Your task to perform on an android device: turn on translation in the chrome app Image 0: 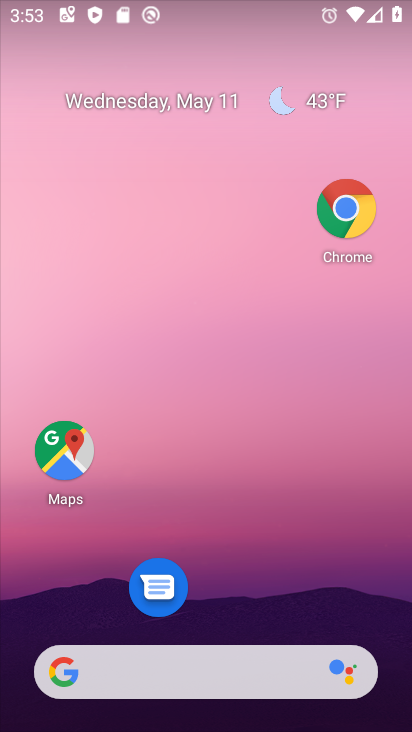
Step 0: click (360, 229)
Your task to perform on an android device: turn on translation in the chrome app Image 1: 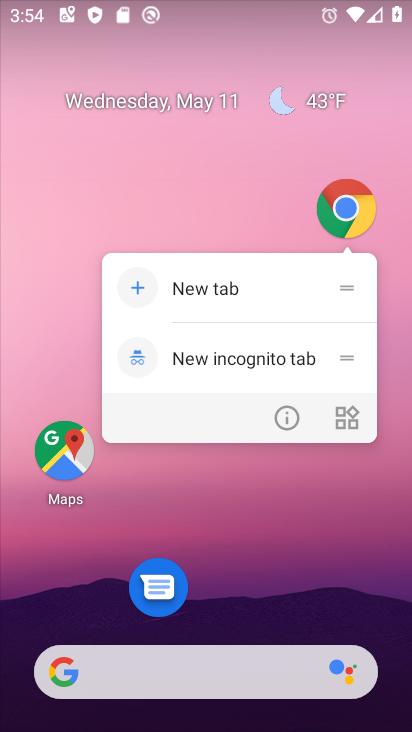
Step 1: click (212, 137)
Your task to perform on an android device: turn on translation in the chrome app Image 2: 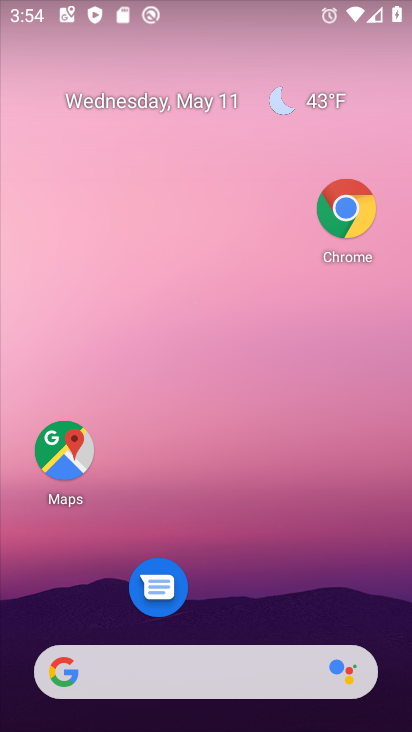
Step 2: click (342, 211)
Your task to perform on an android device: turn on translation in the chrome app Image 3: 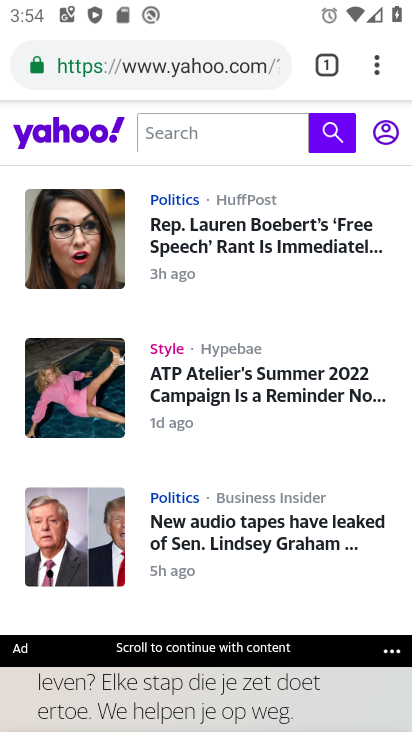
Step 3: click (385, 46)
Your task to perform on an android device: turn on translation in the chrome app Image 4: 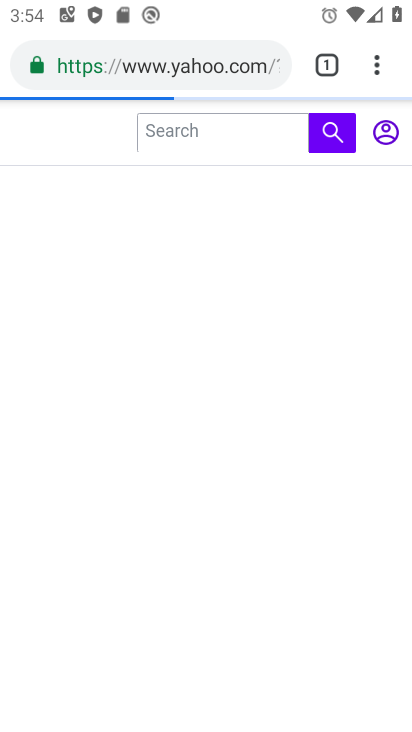
Step 4: click (325, 71)
Your task to perform on an android device: turn on translation in the chrome app Image 5: 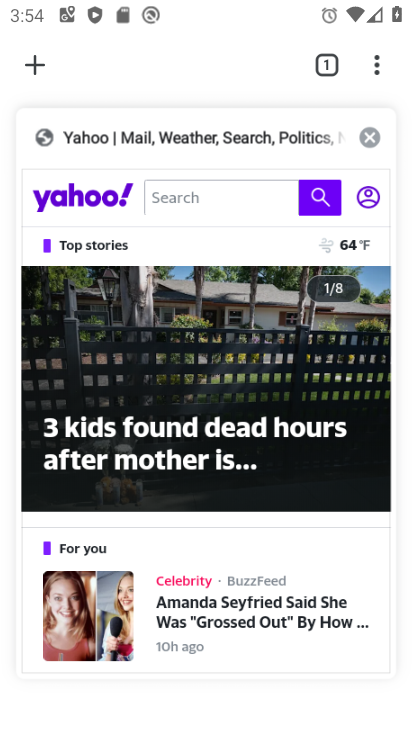
Step 5: click (370, 136)
Your task to perform on an android device: turn on translation in the chrome app Image 6: 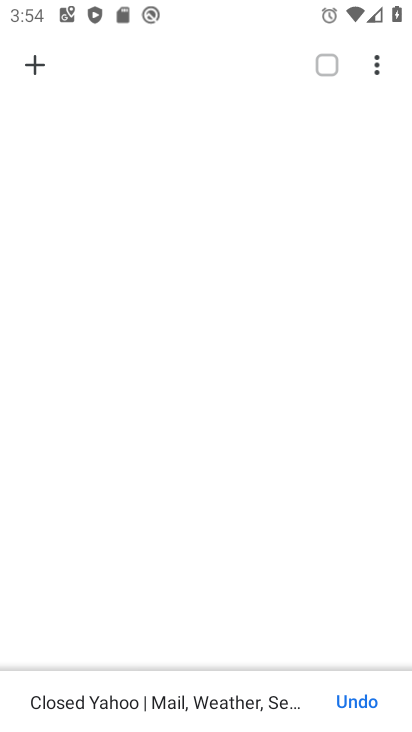
Step 6: click (375, 72)
Your task to perform on an android device: turn on translation in the chrome app Image 7: 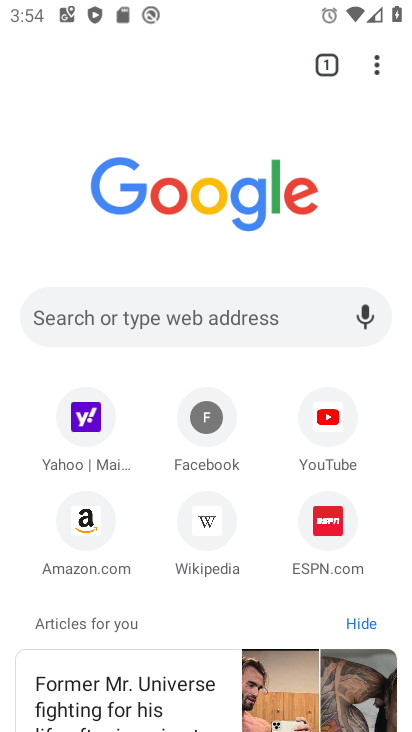
Step 7: click (377, 74)
Your task to perform on an android device: turn on translation in the chrome app Image 8: 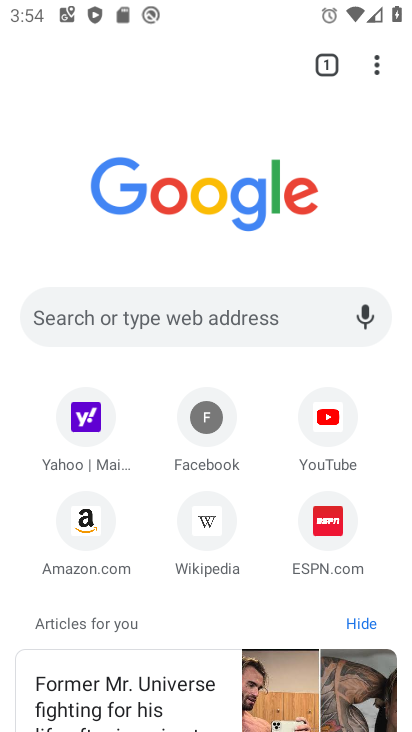
Step 8: click (378, 75)
Your task to perform on an android device: turn on translation in the chrome app Image 9: 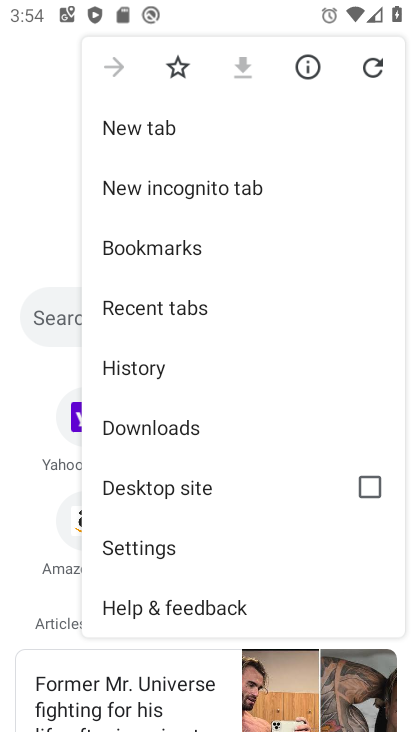
Step 9: click (254, 540)
Your task to perform on an android device: turn on translation in the chrome app Image 10: 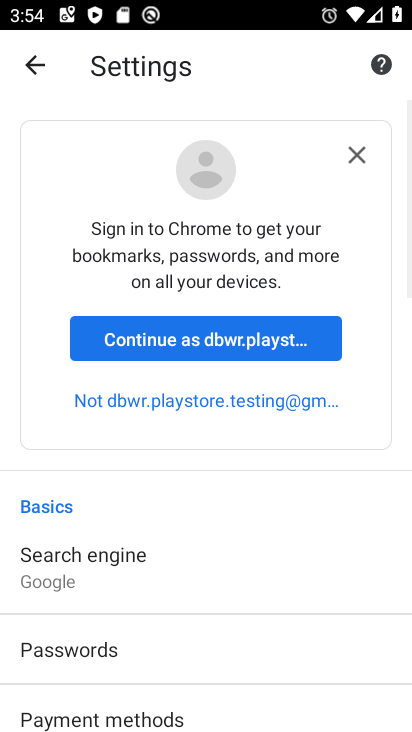
Step 10: drag from (280, 633) to (329, 446)
Your task to perform on an android device: turn on translation in the chrome app Image 11: 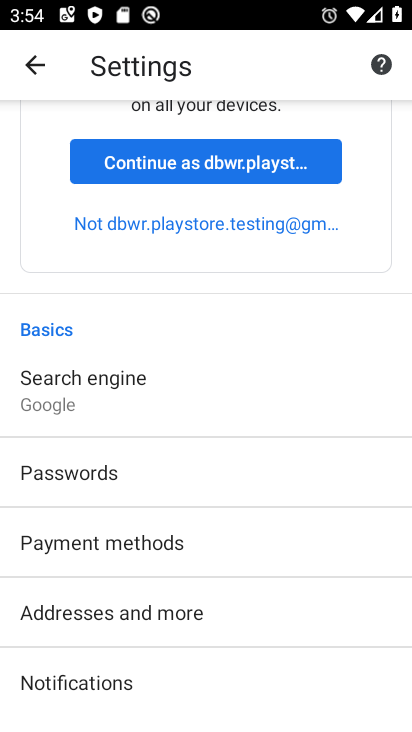
Step 11: drag from (285, 569) to (372, 250)
Your task to perform on an android device: turn on translation in the chrome app Image 12: 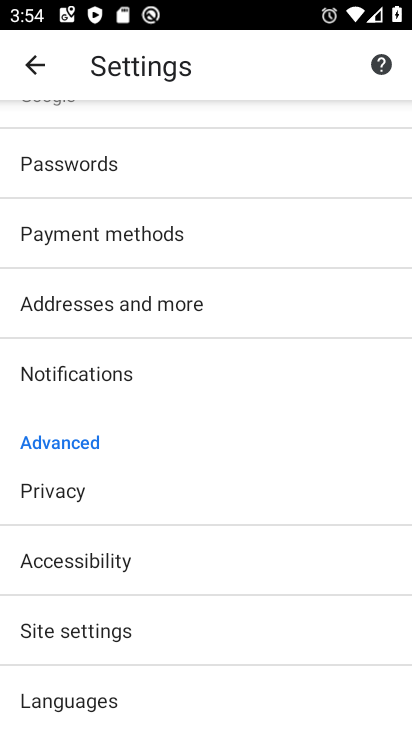
Step 12: drag from (283, 493) to (328, 140)
Your task to perform on an android device: turn on translation in the chrome app Image 13: 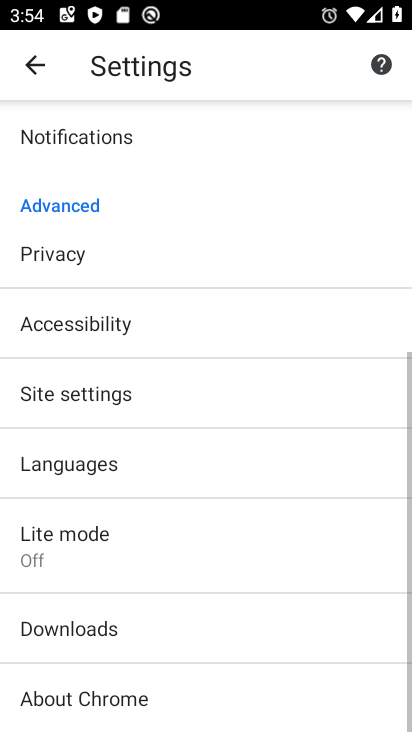
Step 13: drag from (316, 456) to (385, 166)
Your task to perform on an android device: turn on translation in the chrome app Image 14: 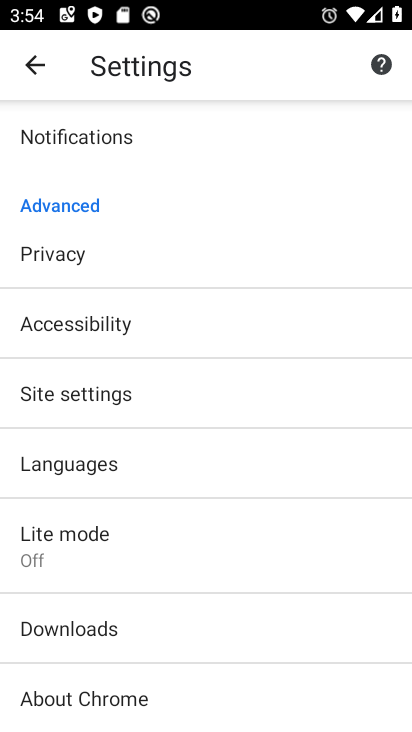
Step 14: drag from (284, 638) to (309, 382)
Your task to perform on an android device: turn on translation in the chrome app Image 15: 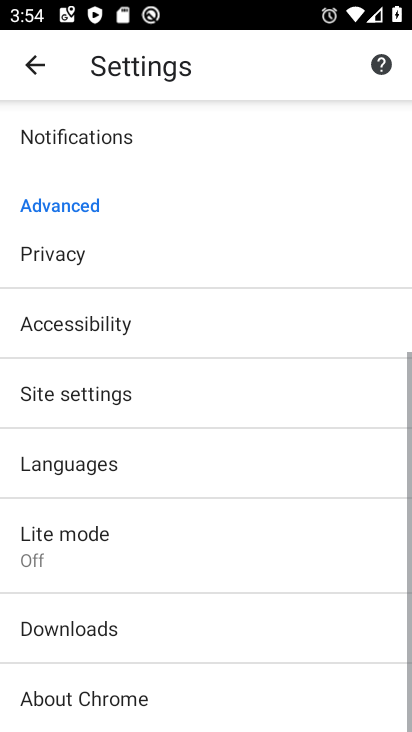
Step 15: click (229, 392)
Your task to perform on an android device: turn on translation in the chrome app Image 16: 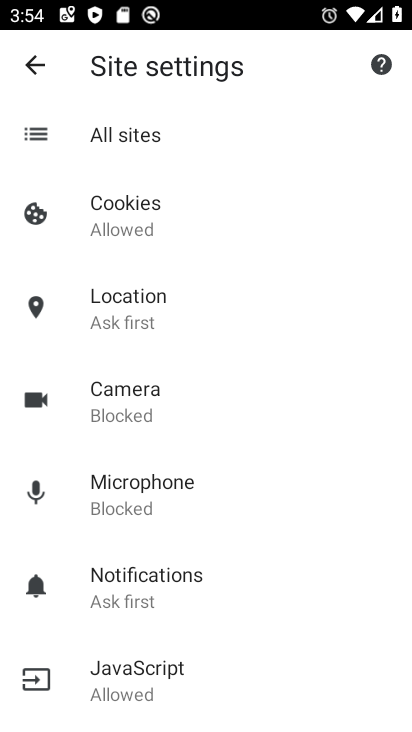
Step 16: drag from (271, 664) to (294, 215)
Your task to perform on an android device: turn on translation in the chrome app Image 17: 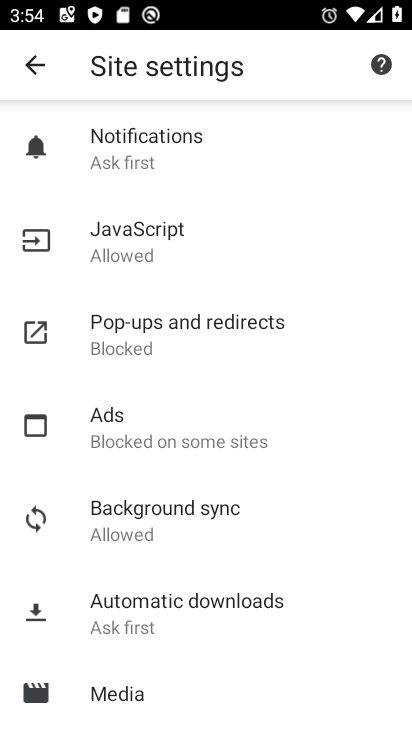
Step 17: drag from (242, 717) to (234, 352)
Your task to perform on an android device: turn on translation in the chrome app Image 18: 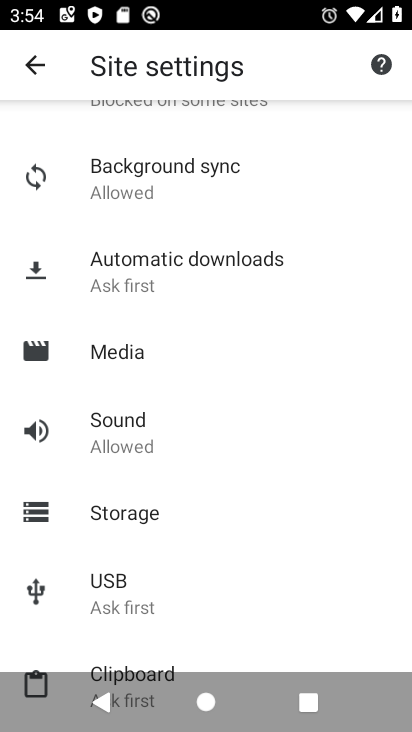
Step 18: drag from (195, 585) to (279, 370)
Your task to perform on an android device: turn on translation in the chrome app Image 19: 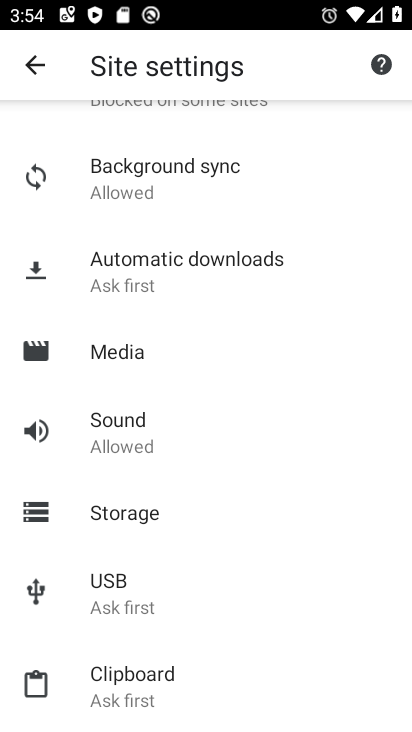
Step 19: drag from (229, 595) to (296, 293)
Your task to perform on an android device: turn on translation in the chrome app Image 20: 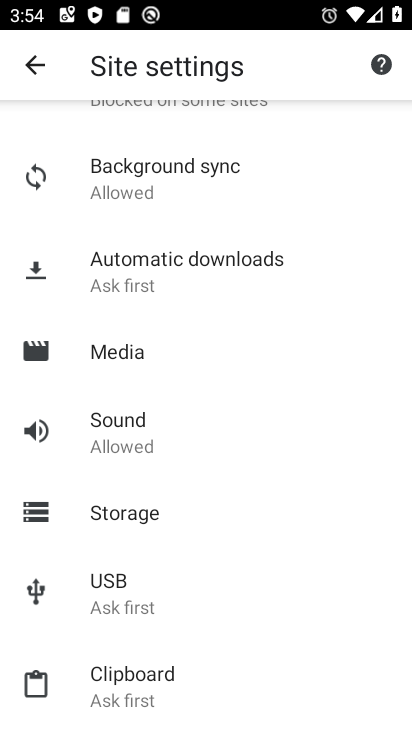
Step 20: drag from (281, 251) to (281, 657)
Your task to perform on an android device: turn on translation in the chrome app Image 21: 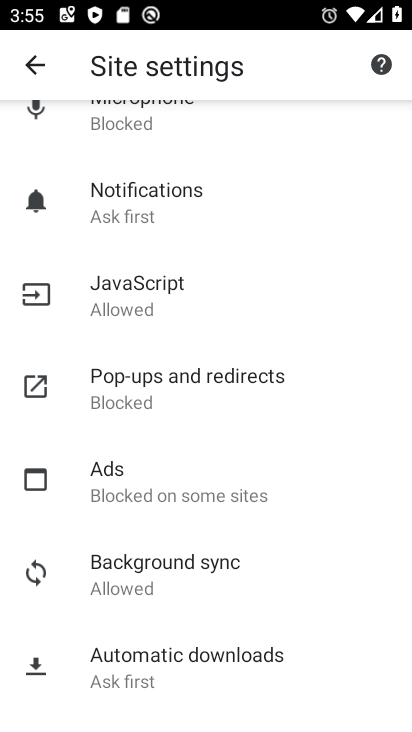
Step 21: click (46, 67)
Your task to perform on an android device: turn on translation in the chrome app Image 22: 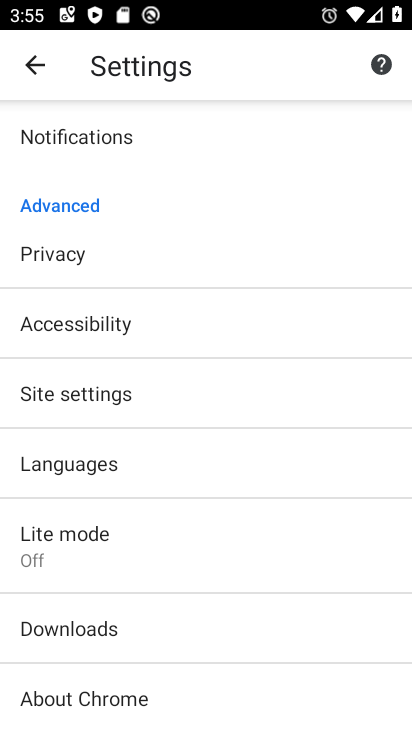
Step 22: click (107, 325)
Your task to perform on an android device: turn on translation in the chrome app Image 23: 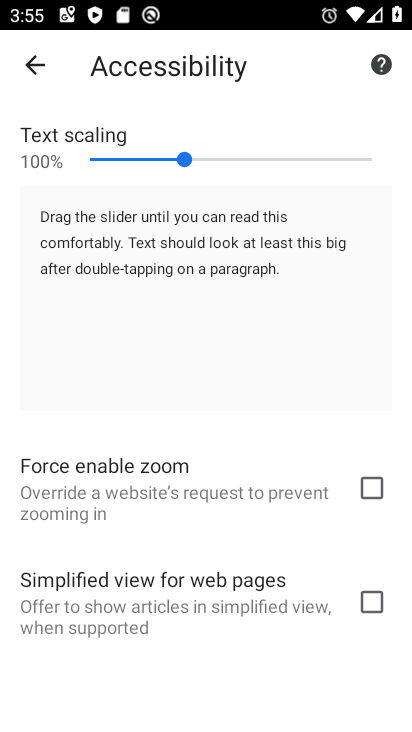
Step 23: click (15, 66)
Your task to perform on an android device: turn on translation in the chrome app Image 24: 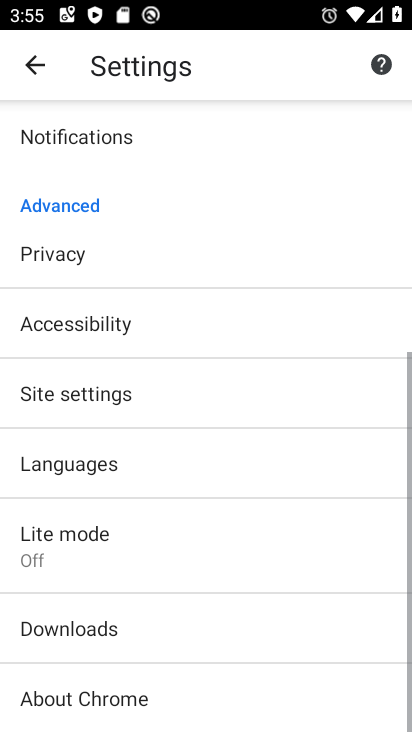
Step 24: click (163, 260)
Your task to perform on an android device: turn on translation in the chrome app Image 25: 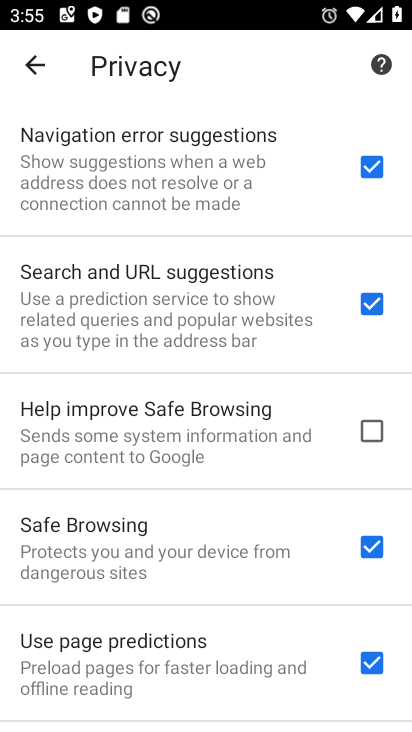
Step 25: click (19, 56)
Your task to perform on an android device: turn on translation in the chrome app Image 26: 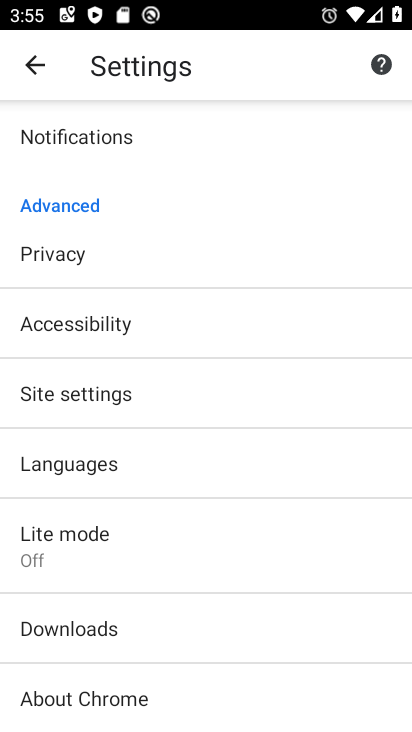
Step 26: task complete